Your task to perform on an android device: Clear the cart on walmart. Add lenovo thinkpad to the cart on walmart, then select checkout. Image 0: 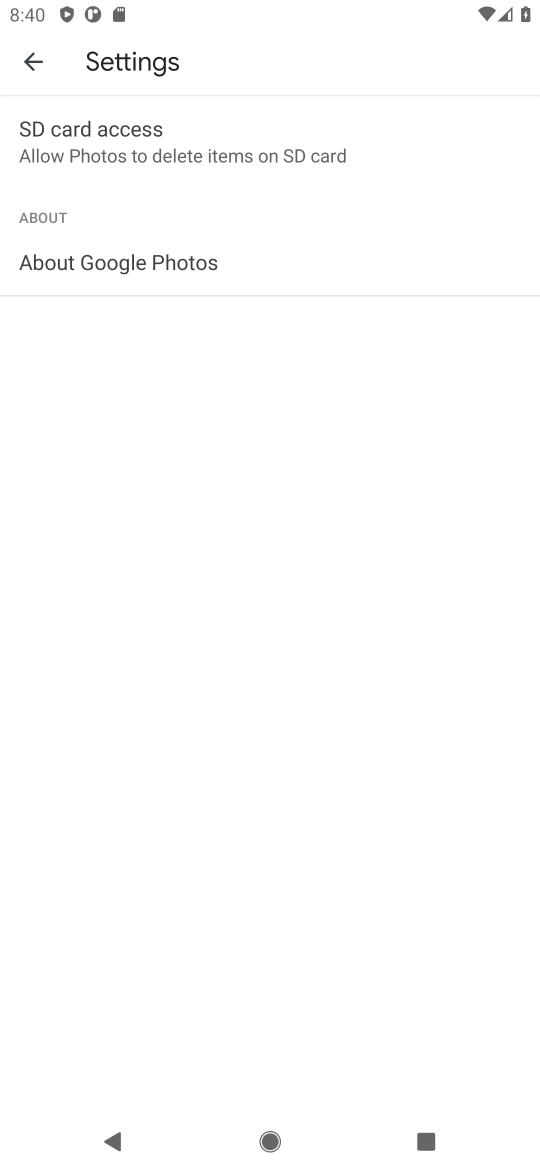
Step 0: press home button
Your task to perform on an android device: Clear the cart on walmart. Add lenovo thinkpad to the cart on walmart, then select checkout. Image 1: 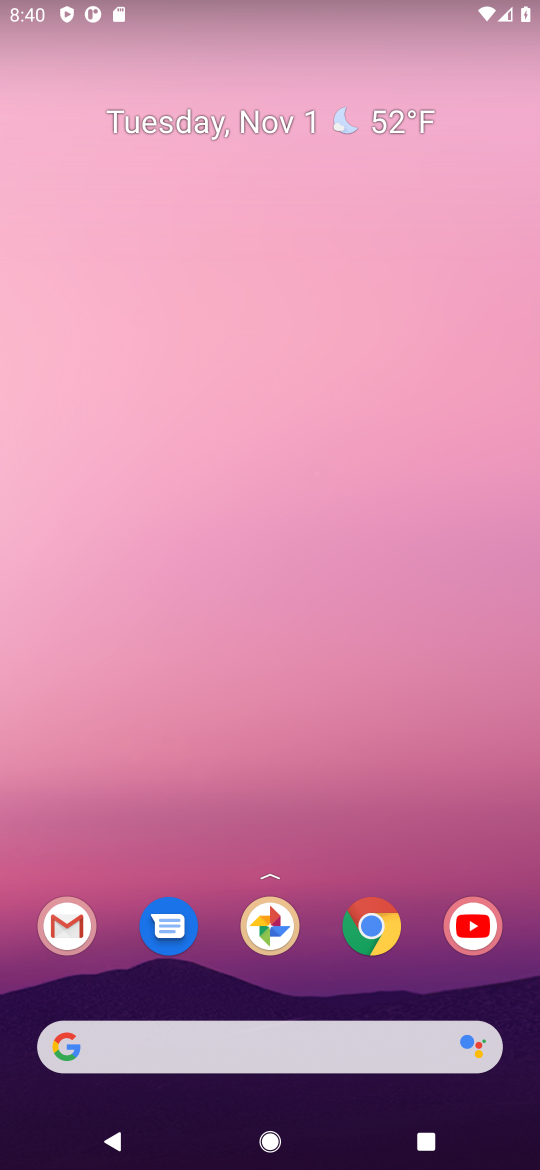
Step 1: click (376, 919)
Your task to perform on an android device: Clear the cart on walmart. Add lenovo thinkpad to the cart on walmart, then select checkout. Image 2: 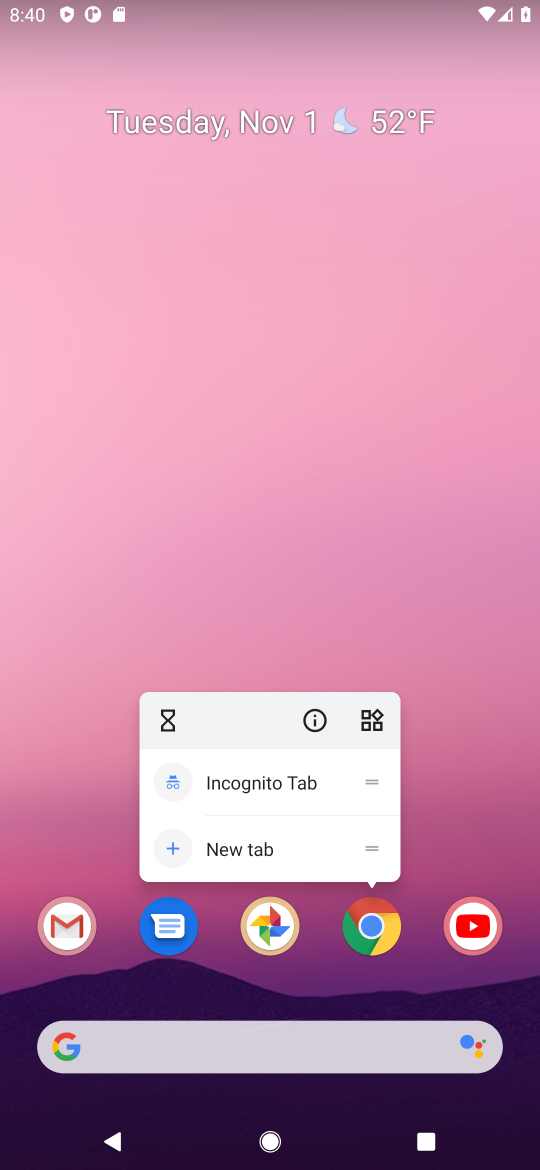
Step 2: click (361, 937)
Your task to perform on an android device: Clear the cart on walmart. Add lenovo thinkpad to the cart on walmart, then select checkout. Image 3: 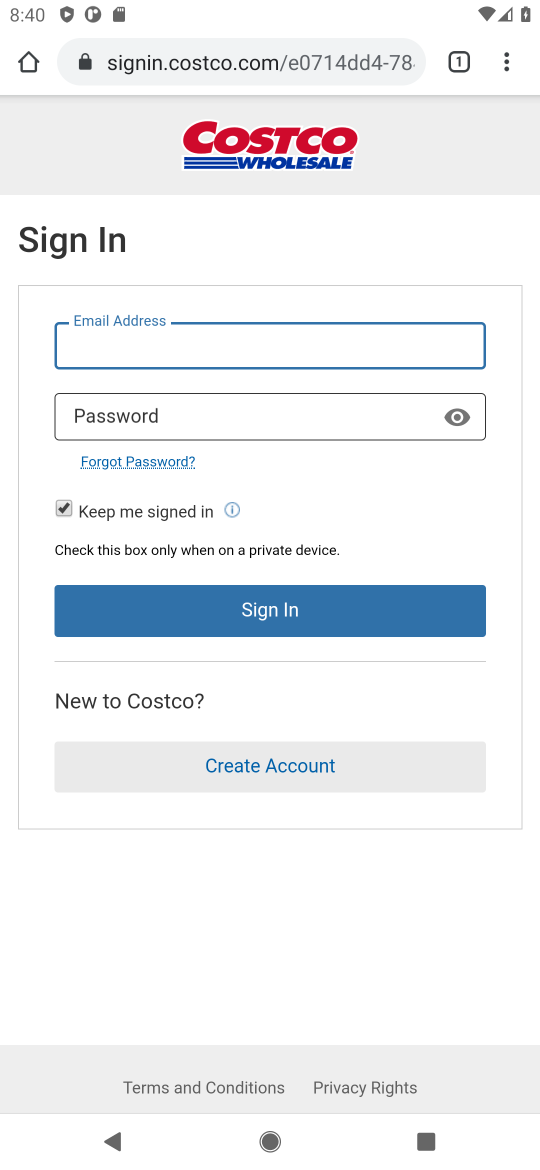
Step 3: click (134, 54)
Your task to perform on an android device: Clear the cart on walmart. Add lenovo thinkpad to the cart on walmart, then select checkout. Image 4: 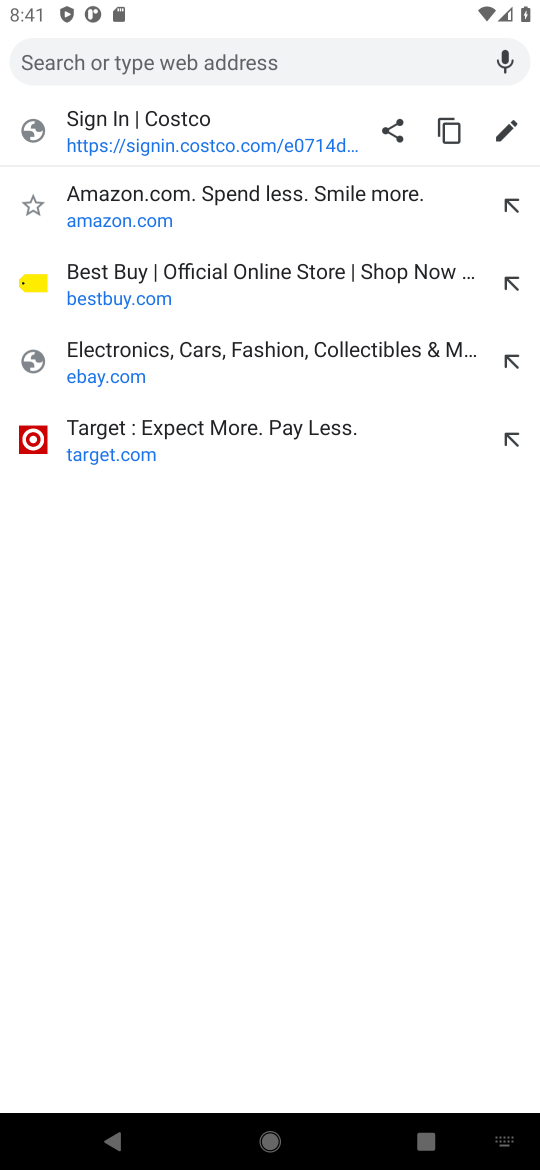
Step 4: type "walmart"
Your task to perform on an android device: Clear the cart on walmart. Add lenovo thinkpad to the cart on walmart, then select checkout. Image 5: 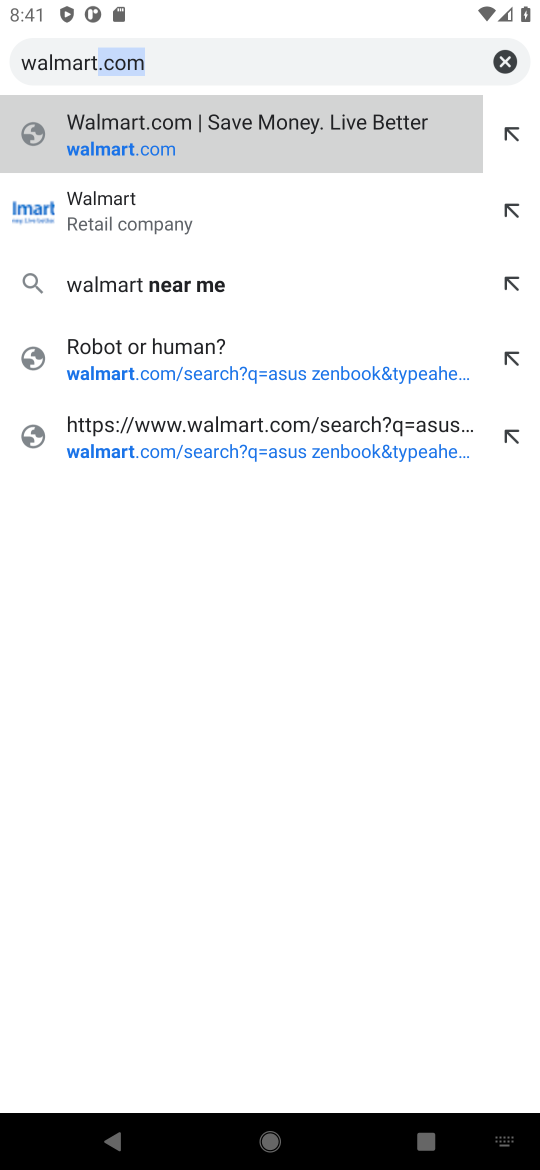
Step 5: type ""
Your task to perform on an android device: Clear the cart on walmart. Add lenovo thinkpad to the cart on walmart, then select checkout. Image 6: 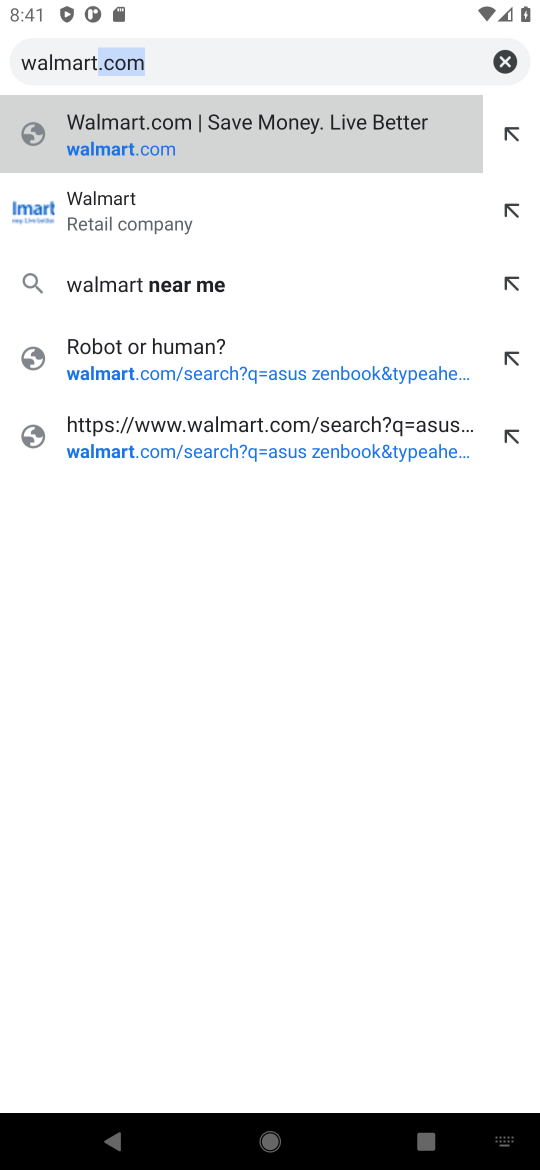
Step 6: click (127, 223)
Your task to perform on an android device: Clear the cart on walmart. Add lenovo thinkpad to the cart on walmart, then select checkout. Image 7: 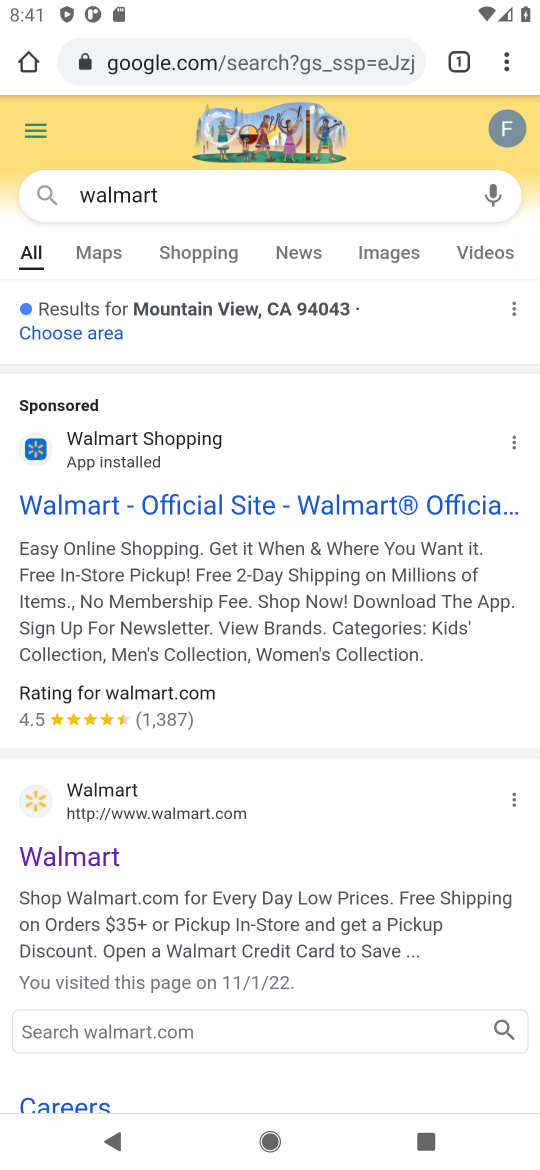
Step 7: click (184, 511)
Your task to perform on an android device: Clear the cart on walmart. Add lenovo thinkpad to the cart on walmart, then select checkout. Image 8: 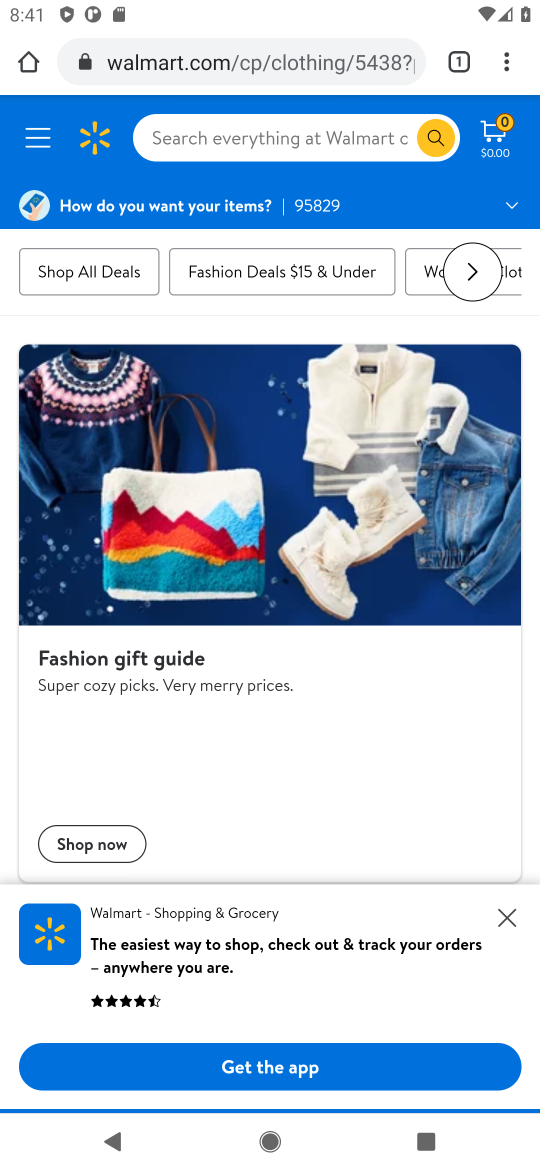
Step 8: click (219, 155)
Your task to perform on an android device: Clear the cart on walmart. Add lenovo thinkpad to the cart on walmart, then select checkout. Image 9: 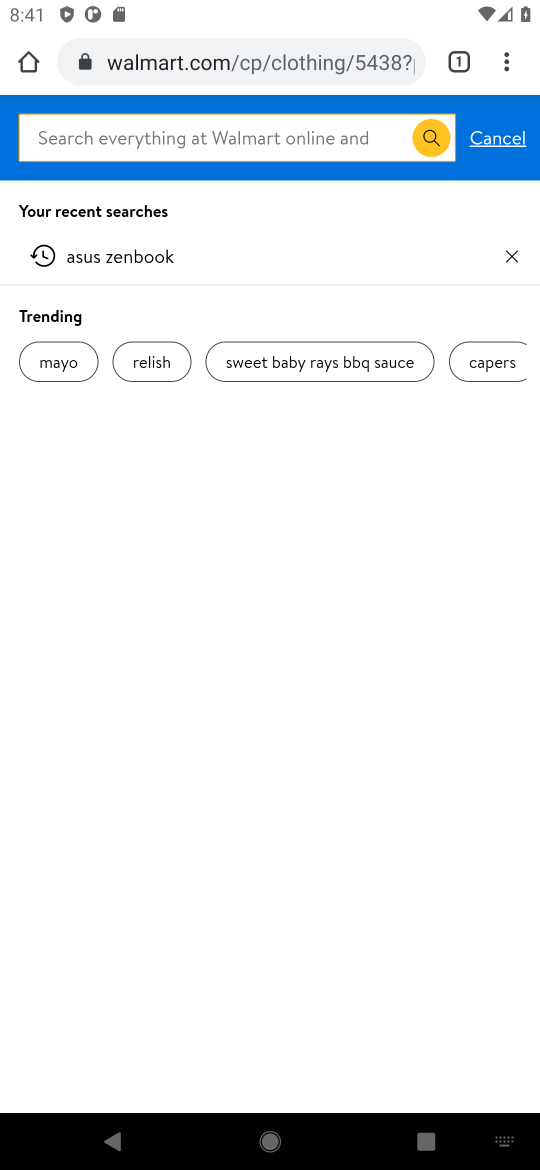
Step 9: type "lenovo thinkpad"
Your task to perform on an android device: Clear the cart on walmart. Add lenovo thinkpad to the cart on walmart, then select checkout. Image 10: 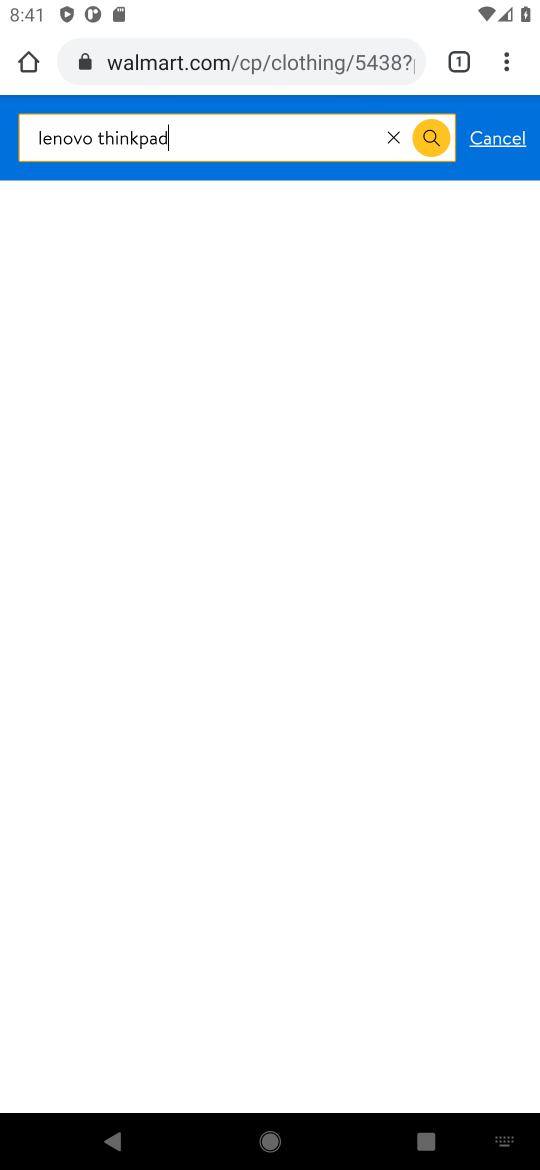
Step 10: type ""
Your task to perform on an android device: Clear the cart on walmart. Add lenovo thinkpad to the cart on walmart, then select checkout. Image 11: 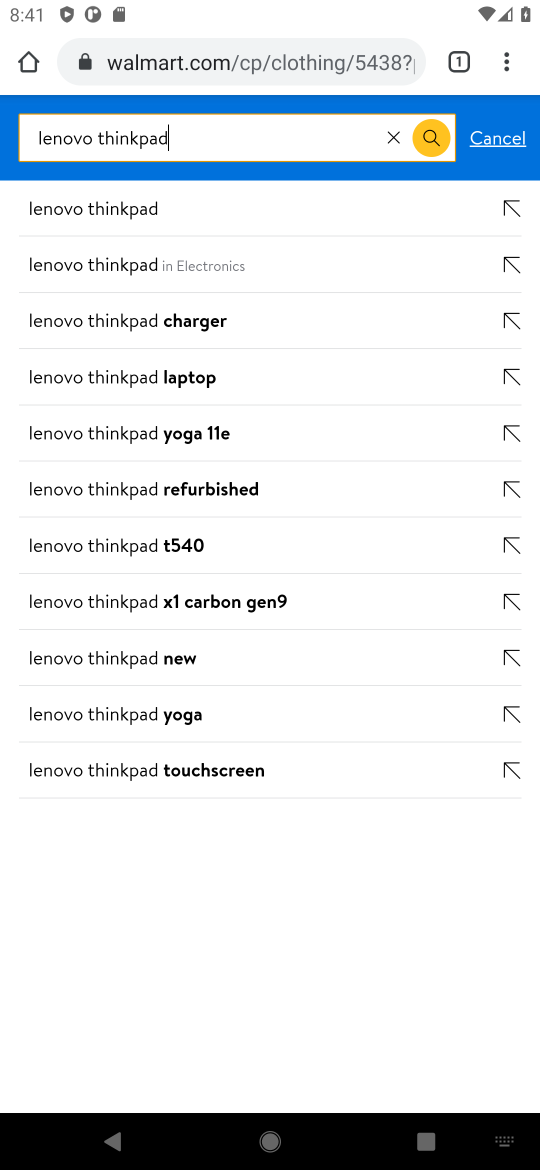
Step 11: click (41, 211)
Your task to perform on an android device: Clear the cart on walmart. Add lenovo thinkpad to the cart on walmart, then select checkout. Image 12: 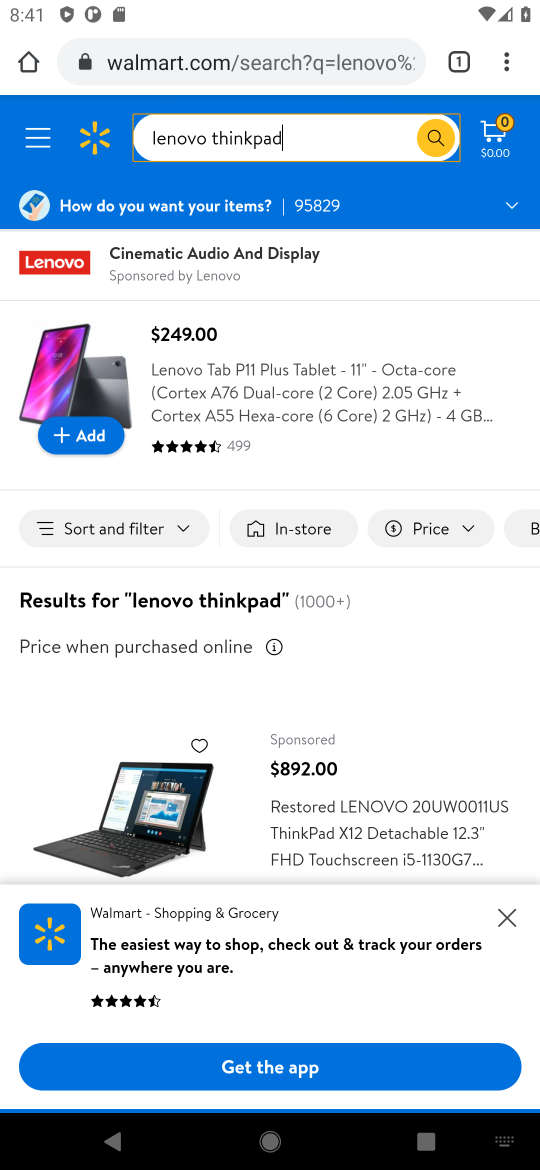
Step 12: click (512, 914)
Your task to perform on an android device: Clear the cart on walmart. Add lenovo thinkpad to the cart on walmart, then select checkout. Image 13: 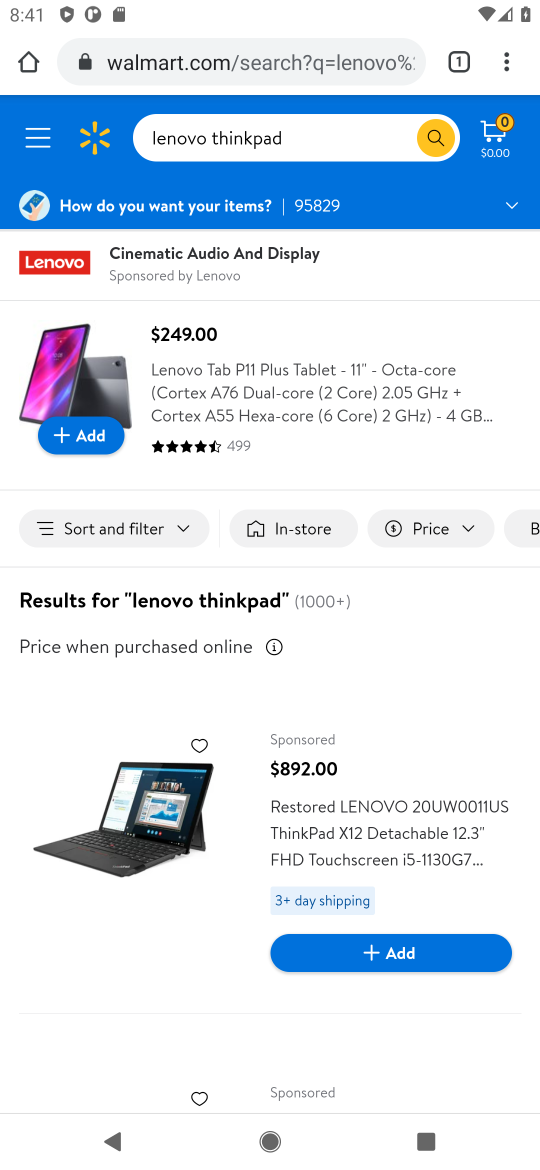
Step 13: drag from (221, 1020) to (209, 427)
Your task to perform on an android device: Clear the cart on walmart. Add lenovo thinkpad to the cart on walmart, then select checkout. Image 14: 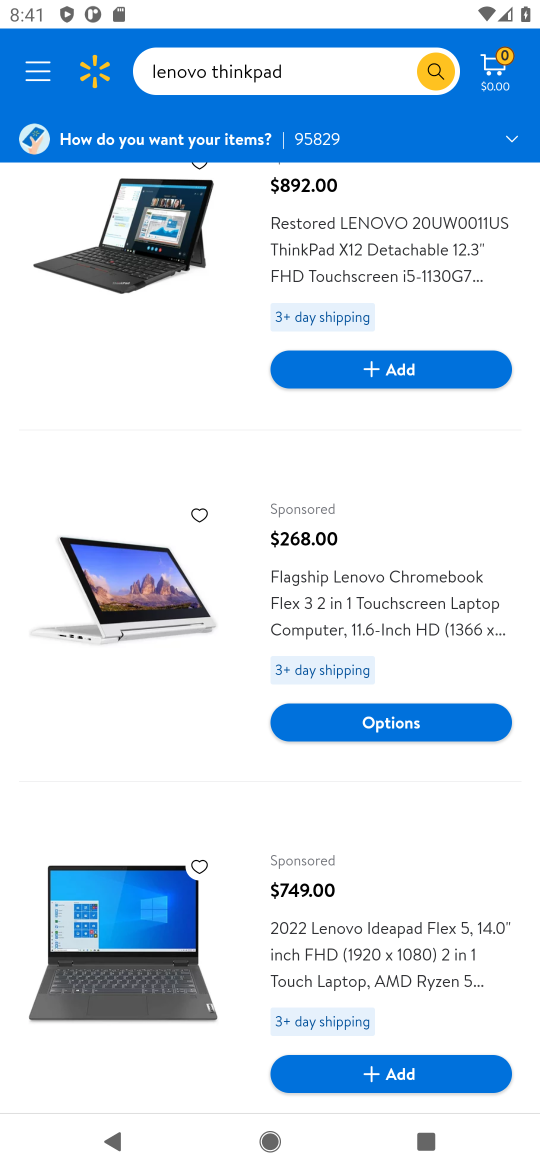
Step 14: drag from (213, 948) to (265, 393)
Your task to perform on an android device: Clear the cart on walmart. Add lenovo thinkpad to the cart on walmart, then select checkout. Image 15: 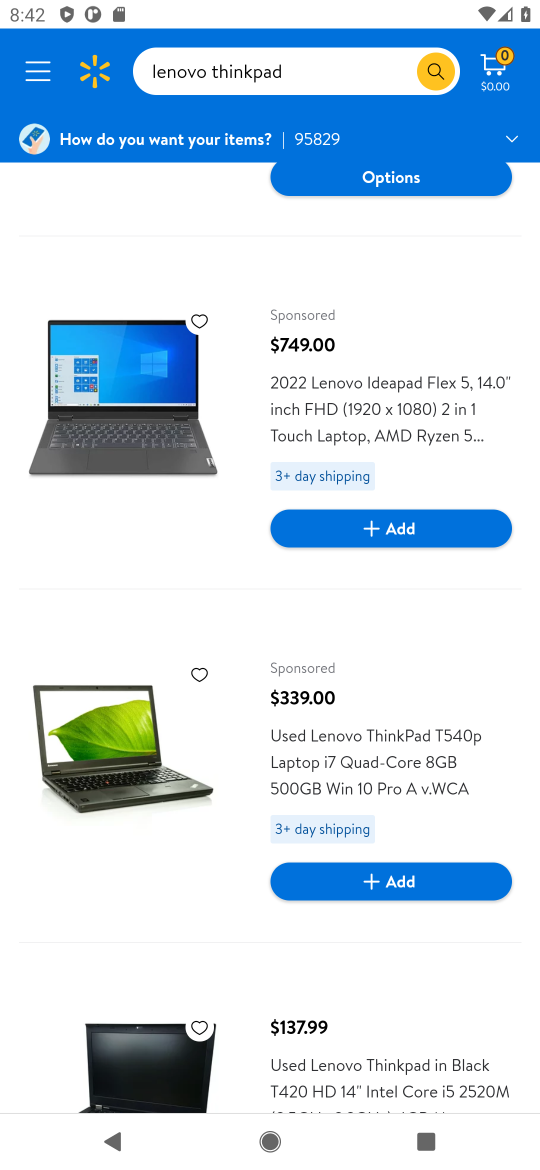
Step 15: click (353, 750)
Your task to perform on an android device: Clear the cart on walmart. Add lenovo thinkpad to the cart on walmart, then select checkout. Image 16: 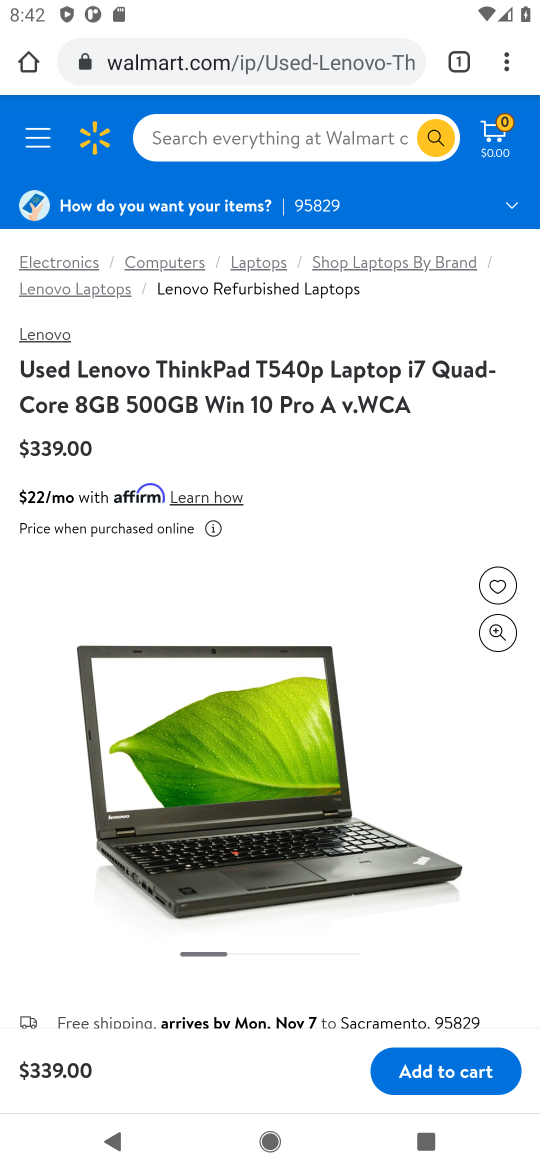
Step 16: click (415, 856)
Your task to perform on an android device: Clear the cart on walmart. Add lenovo thinkpad to the cart on walmart, then select checkout. Image 17: 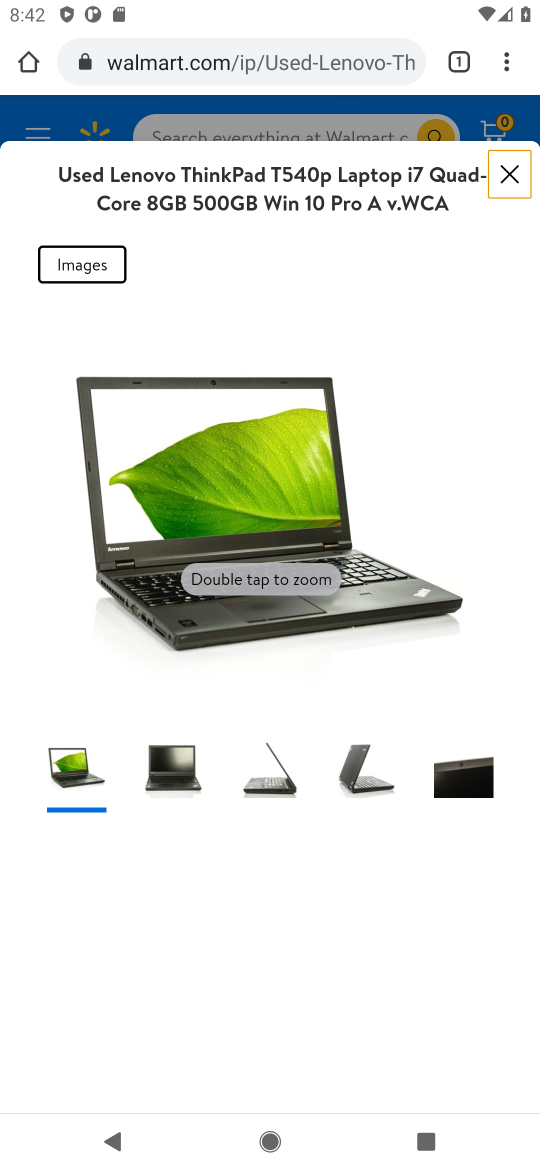
Step 17: click (506, 174)
Your task to perform on an android device: Clear the cart on walmart. Add lenovo thinkpad to the cart on walmart, then select checkout. Image 18: 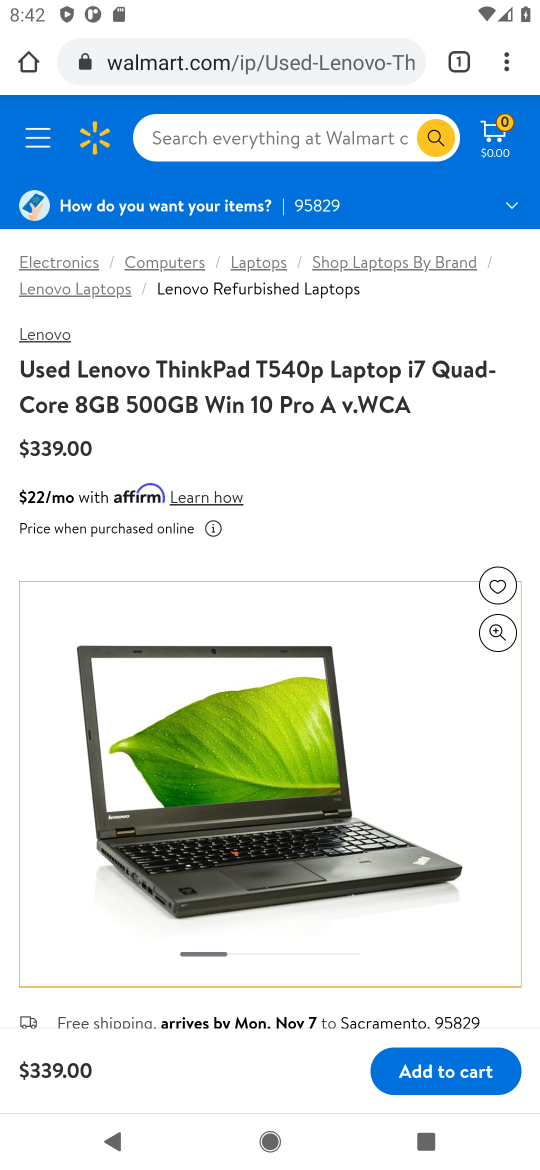
Step 18: click (444, 1083)
Your task to perform on an android device: Clear the cart on walmart. Add lenovo thinkpad to the cart on walmart, then select checkout. Image 19: 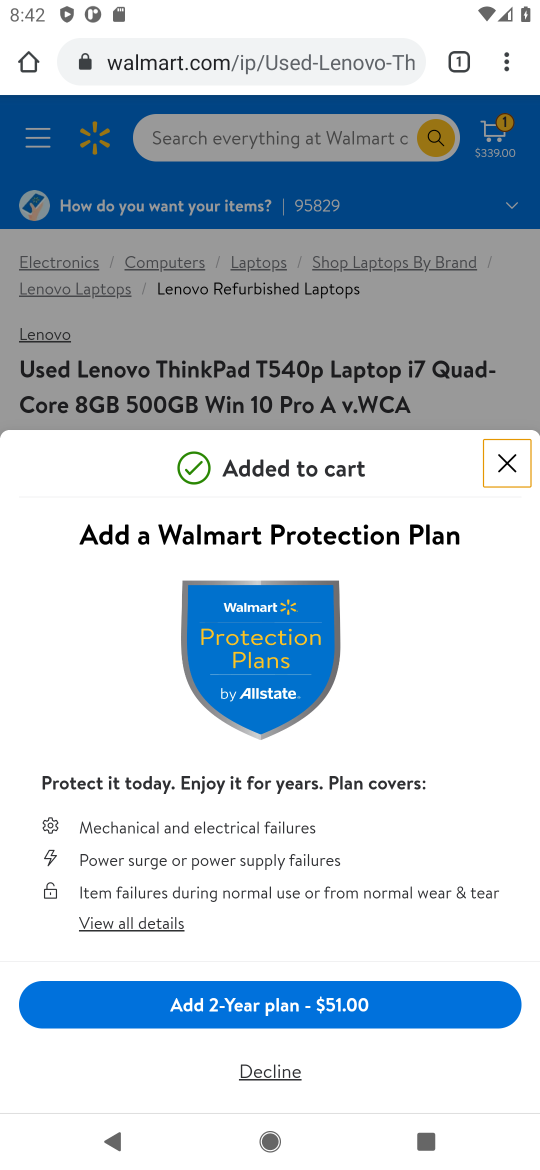
Step 19: click (502, 459)
Your task to perform on an android device: Clear the cart on walmart. Add lenovo thinkpad to the cart on walmart, then select checkout. Image 20: 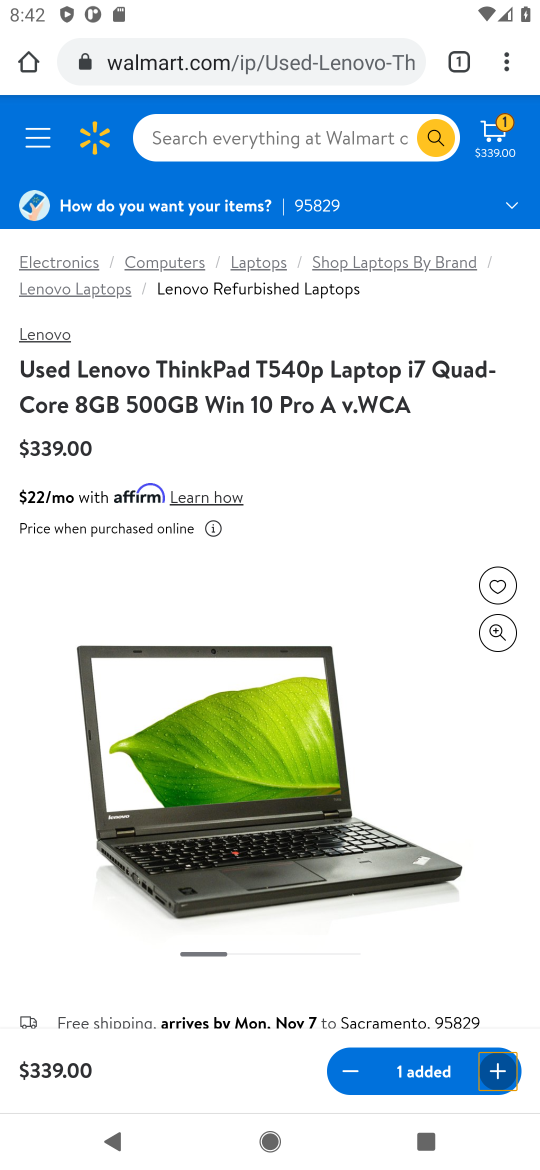
Step 20: drag from (267, 906) to (254, 368)
Your task to perform on an android device: Clear the cart on walmart. Add lenovo thinkpad to the cart on walmart, then select checkout. Image 21: 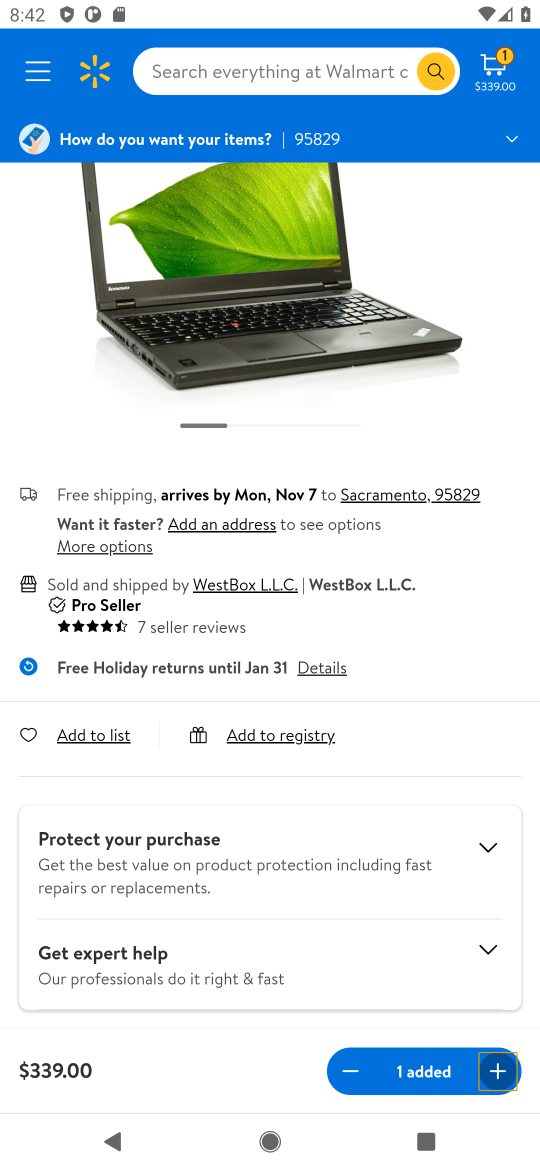
Step 21: drag from (216, 528) to (295, 433)
Your task to perform on an android device: Clear the cart on walmart. Add lenovo thinkpad to the cart on walmart, then select checkout. Image 22: 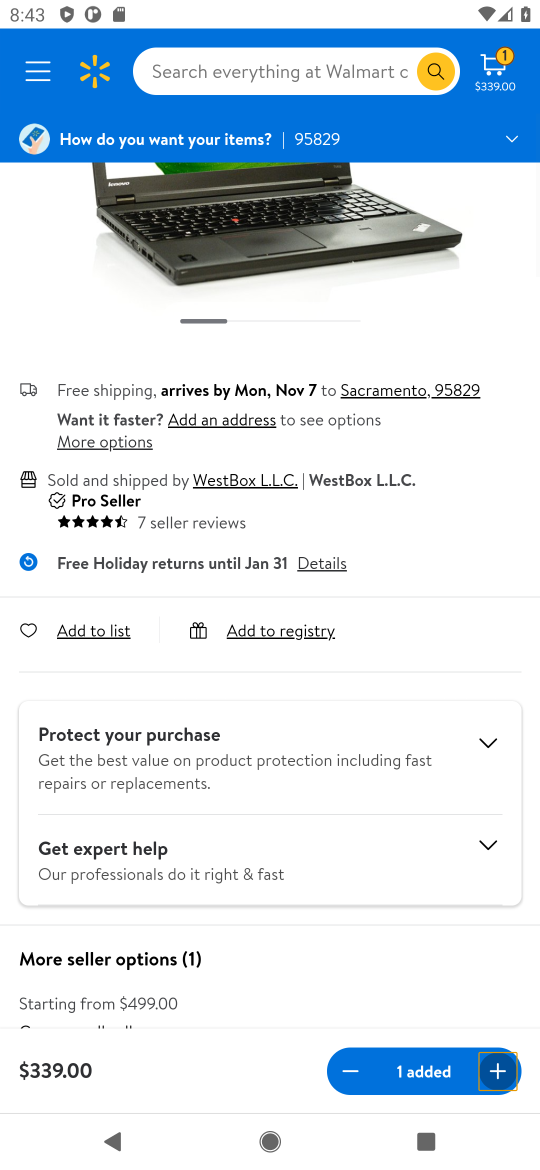
Step 22: drag from (264, 918) to (258, 281)
Your task to perform on an android device: Clear the cart on walmart. Add lenovo thinkpad to the cart on walmart, then select checkout. Image 23: 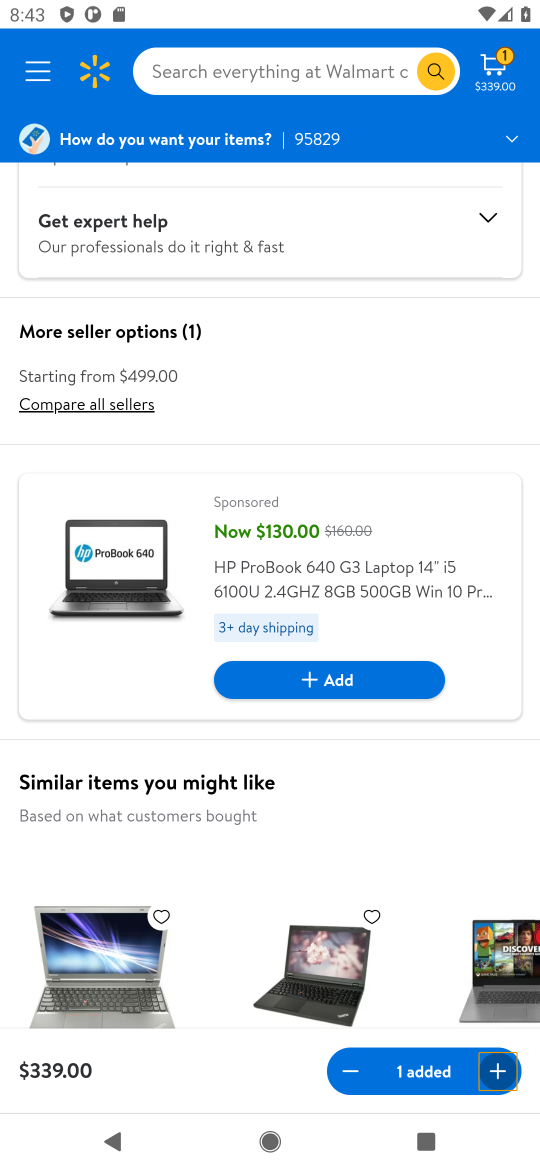
Step 23: drag from (278, 320) to (233, 835)
Your task to perform on an android device: Clear the cart on walmart. Add lenovo thinkpad to the cart on walmart, then select checkout. Image 24: 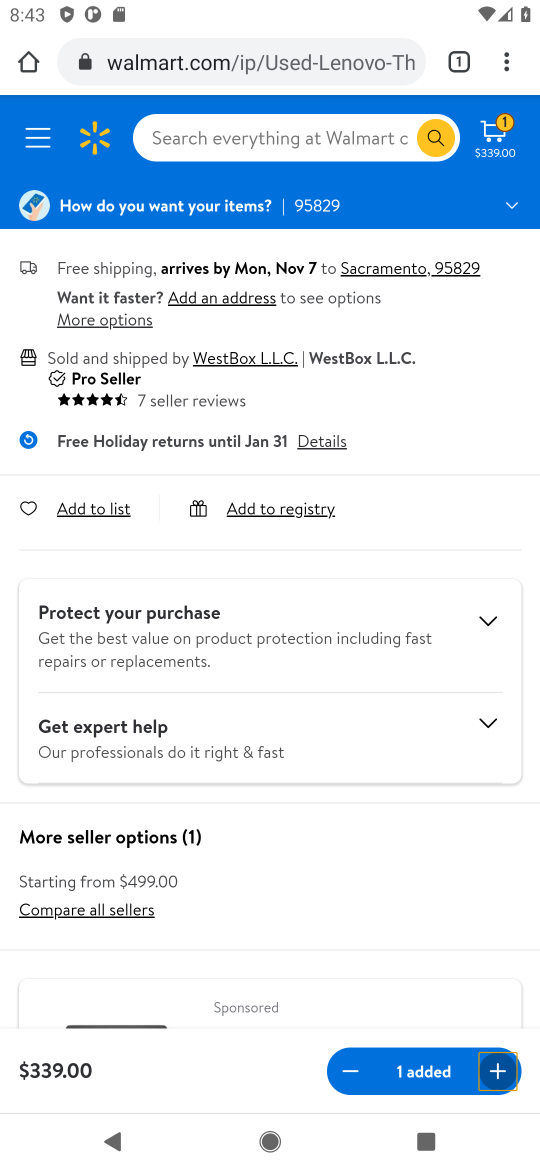
Step 24: click (481, 138)
Your task to perform on an android device: Clear the cart on walmart. Add lenovo thinkpad to the cart on walmart, then select checkout. Image 25: 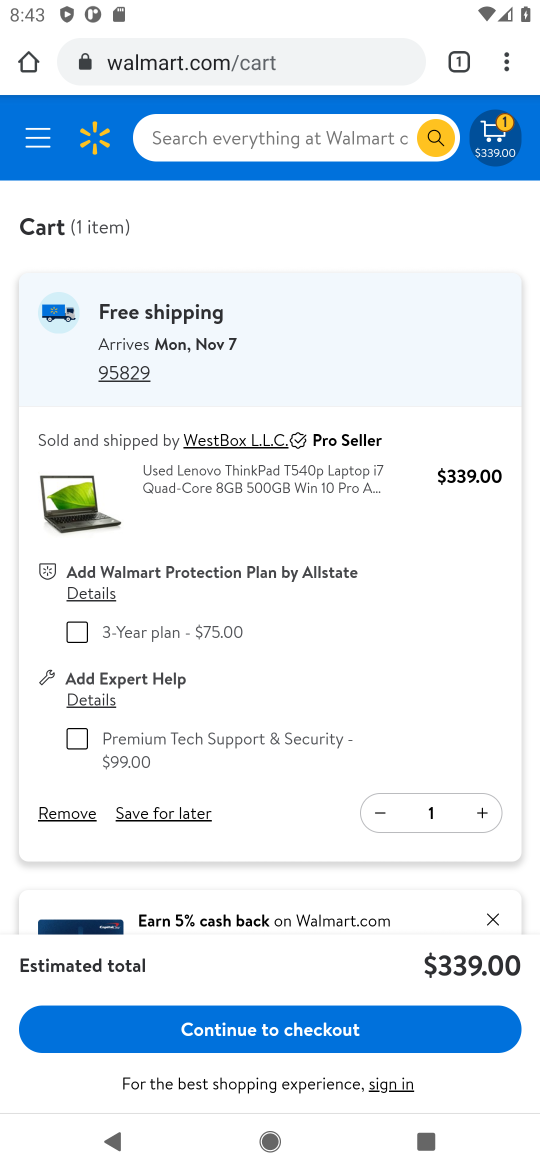
Step 25: click (305, 1037)
Your task to perform on an android device: Clear the cart on walmart. Add lenovo thinkpad to the cart on walmart, then select checkout. Image 26: 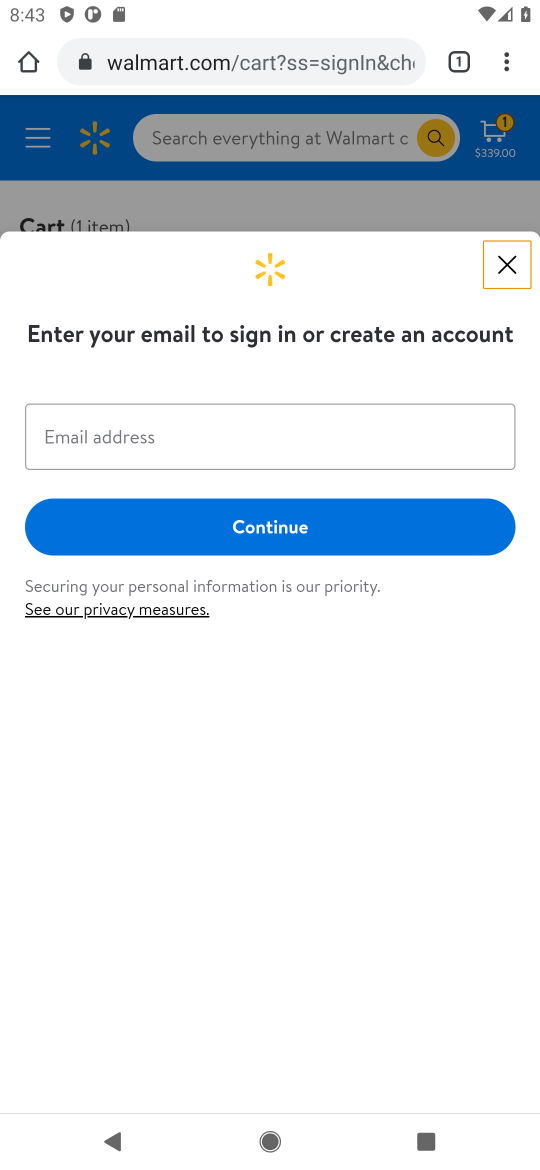
Step 26: task complete